Your task to perform on an android device: Search for dell alienware on amazon, select the first entry, add it to the cart, then select checkout. Image 0: 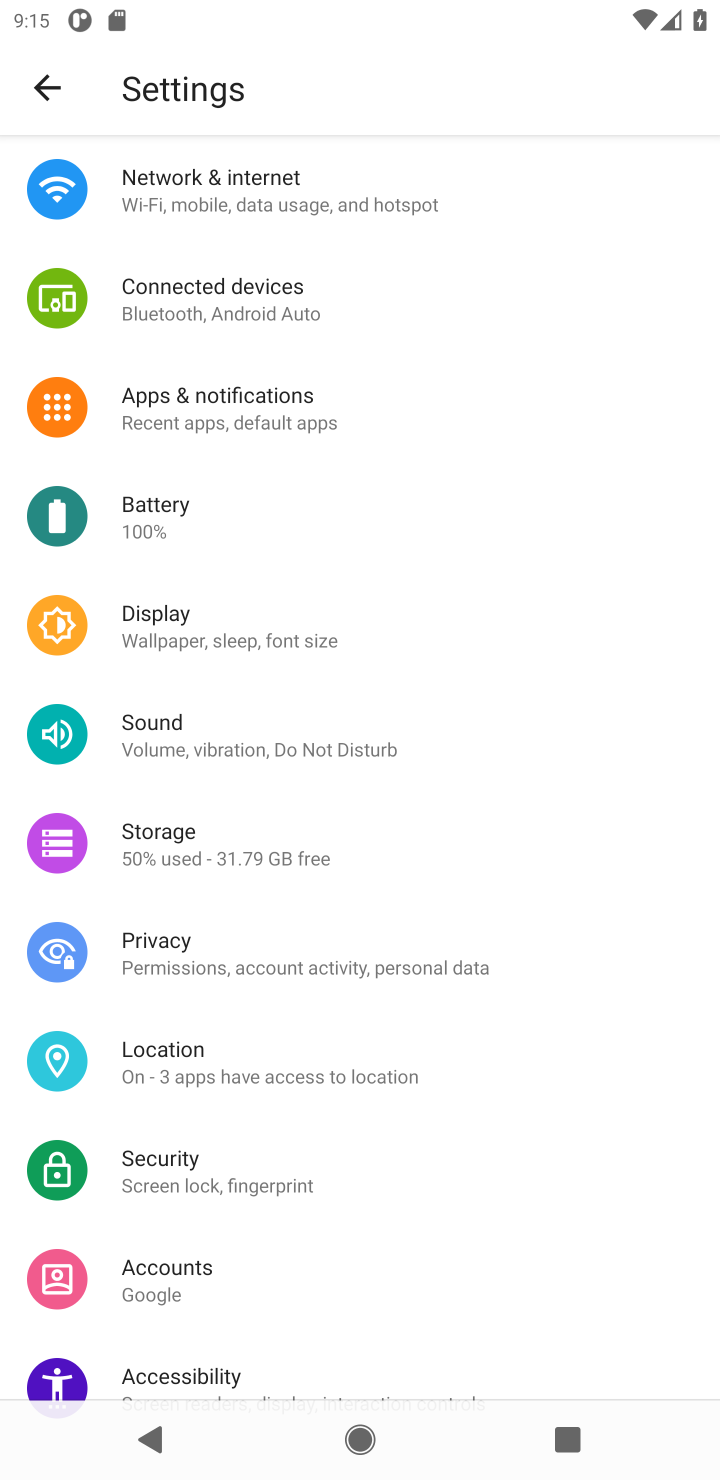
Step 0: press home button
Your task to perform on an android device: Search for dell alienware on amazon, select the first entry, add it to the cart, then select checkout. Image 1: 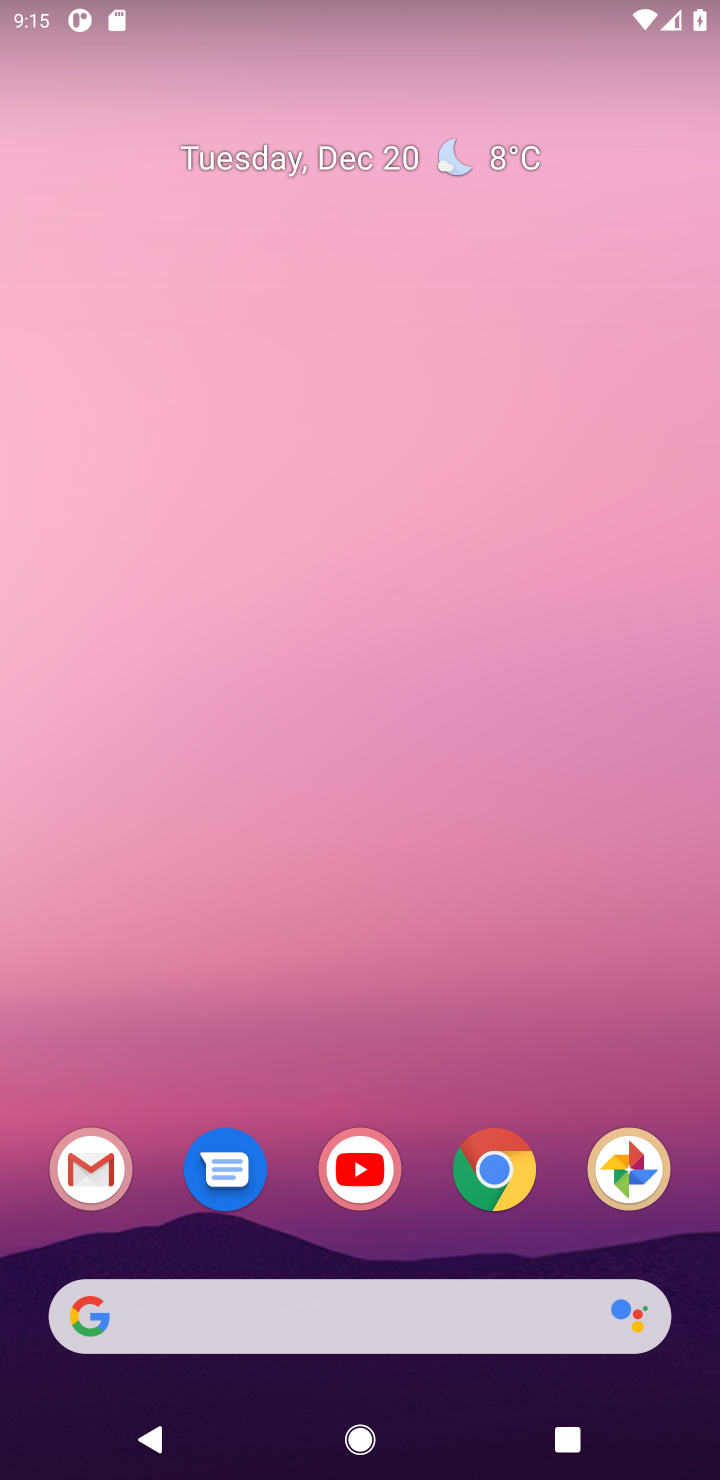
Step 1: click (502, 1154)
Your task to perform on an android device: Search for dell alienware on amazon, select the first entry, add it to the cart, then select checkout. Image 2: 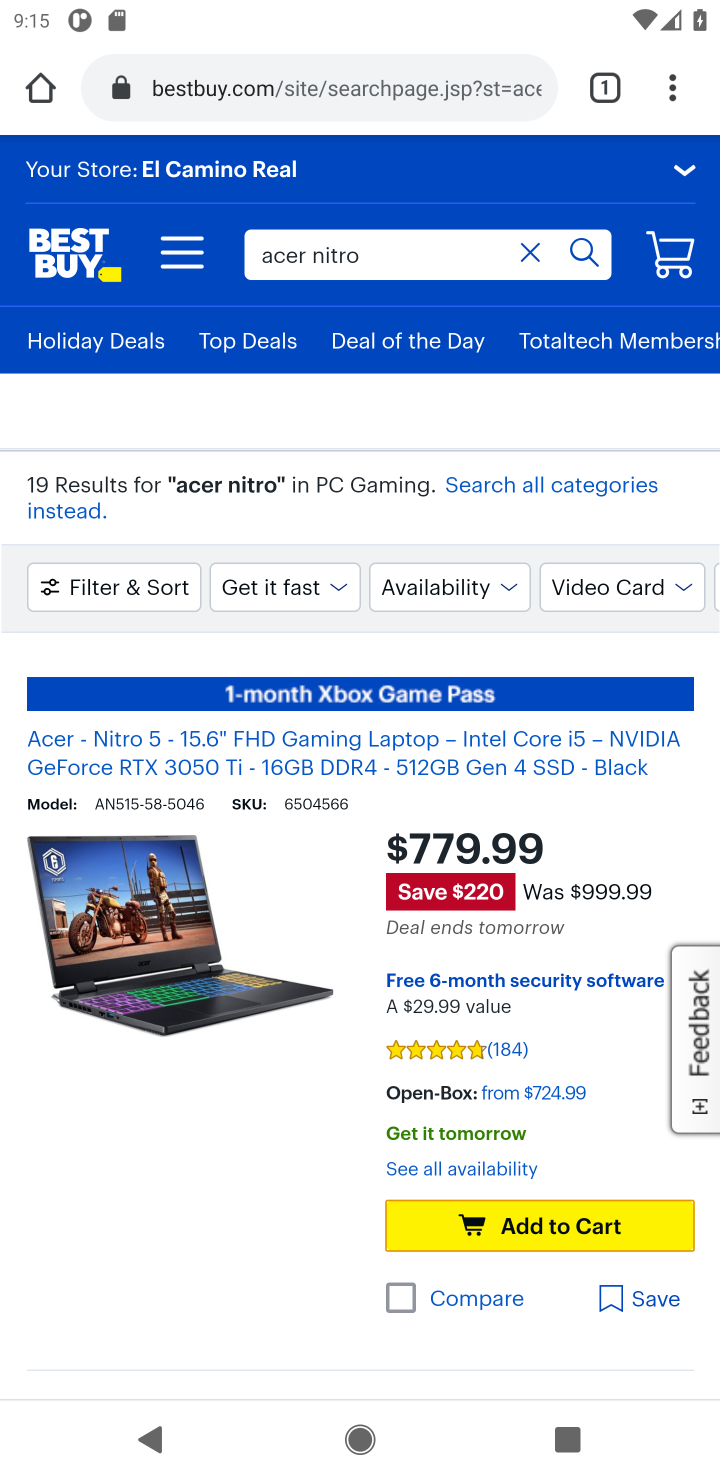
Step 2: click (370, 71)
Your task to perform on an android device: Search for dell alienware on amazon, select the first entry, add it to the cart, then select checkout. Image 3: 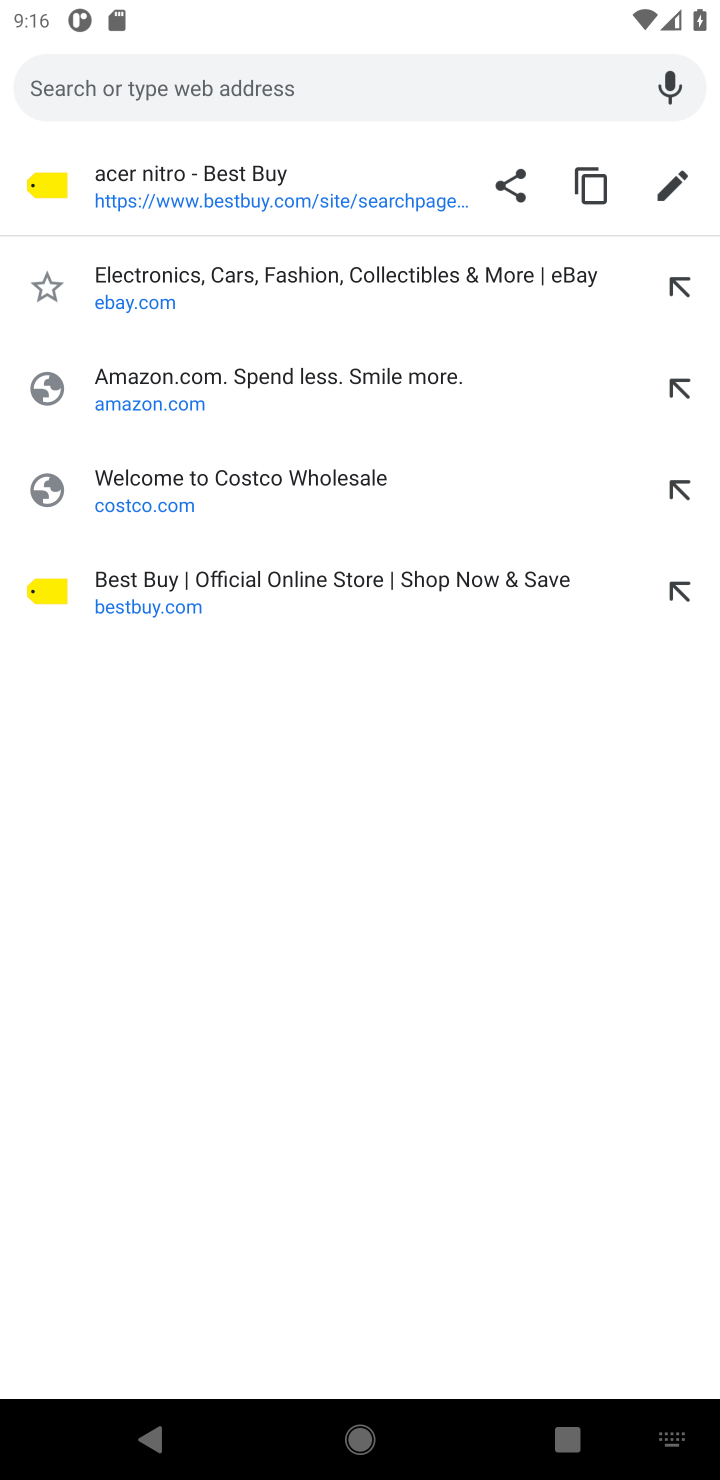
Step 3: click (311, 413)
Your task to perform on an android device: Search for dell alienware on amazon, select the first entry, add it to the cart, then select checkout. Image 4: 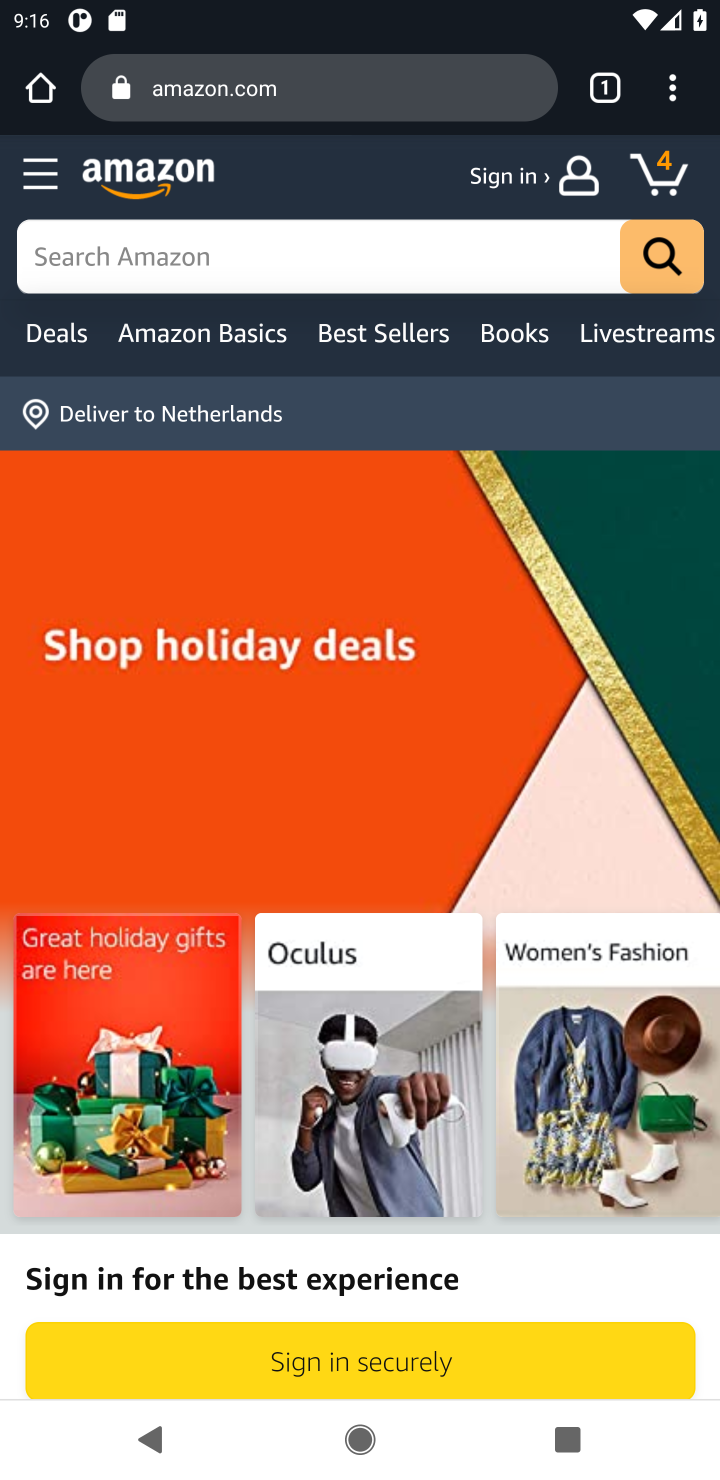
Step 4: click (406, 255)
Your task to perform on an android device: Search for dell alienware on amazon, select the first entry, add it to the cart, then select checkout. Image 5: 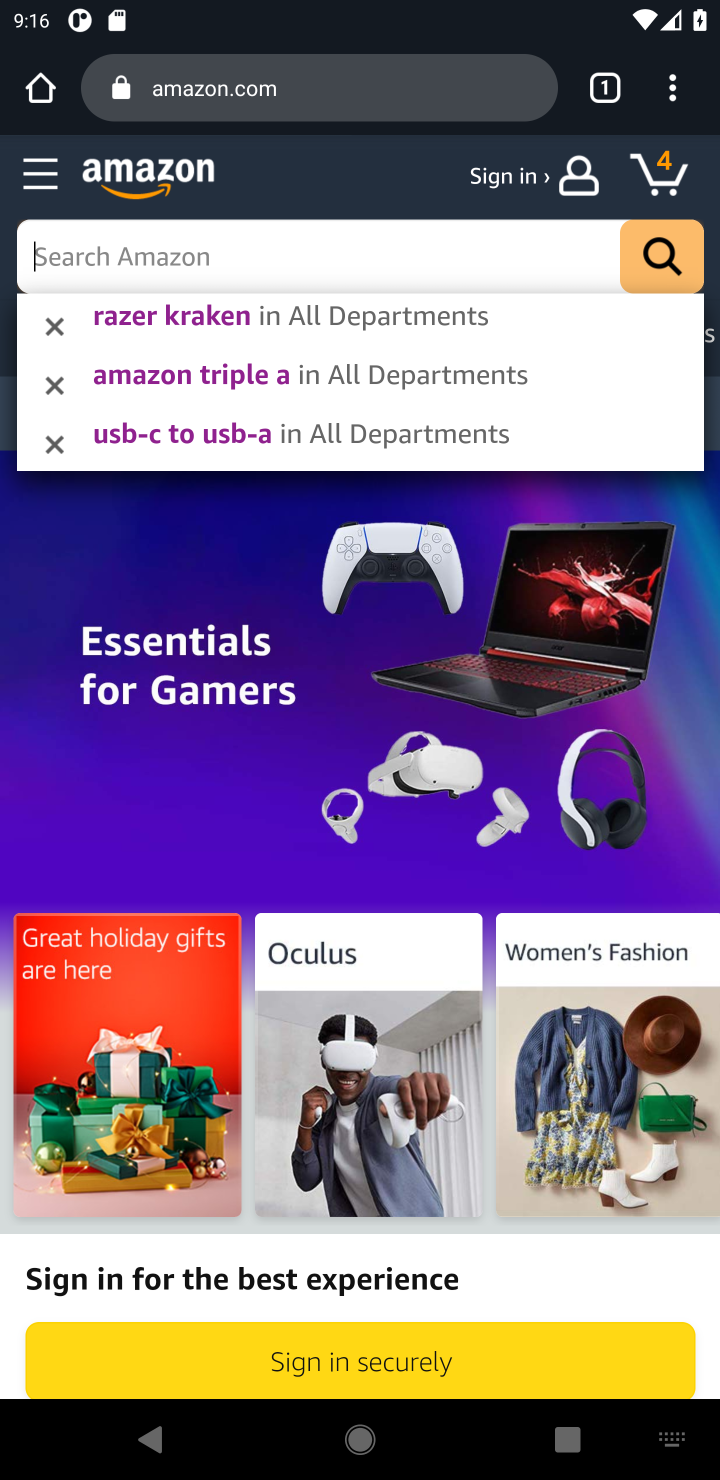
Step 5: type "dell alienware "
Your task to perform on an android device: Search for dell alienware on amazon, select the first entry, add it to the cart, then select checkout. Image 6: 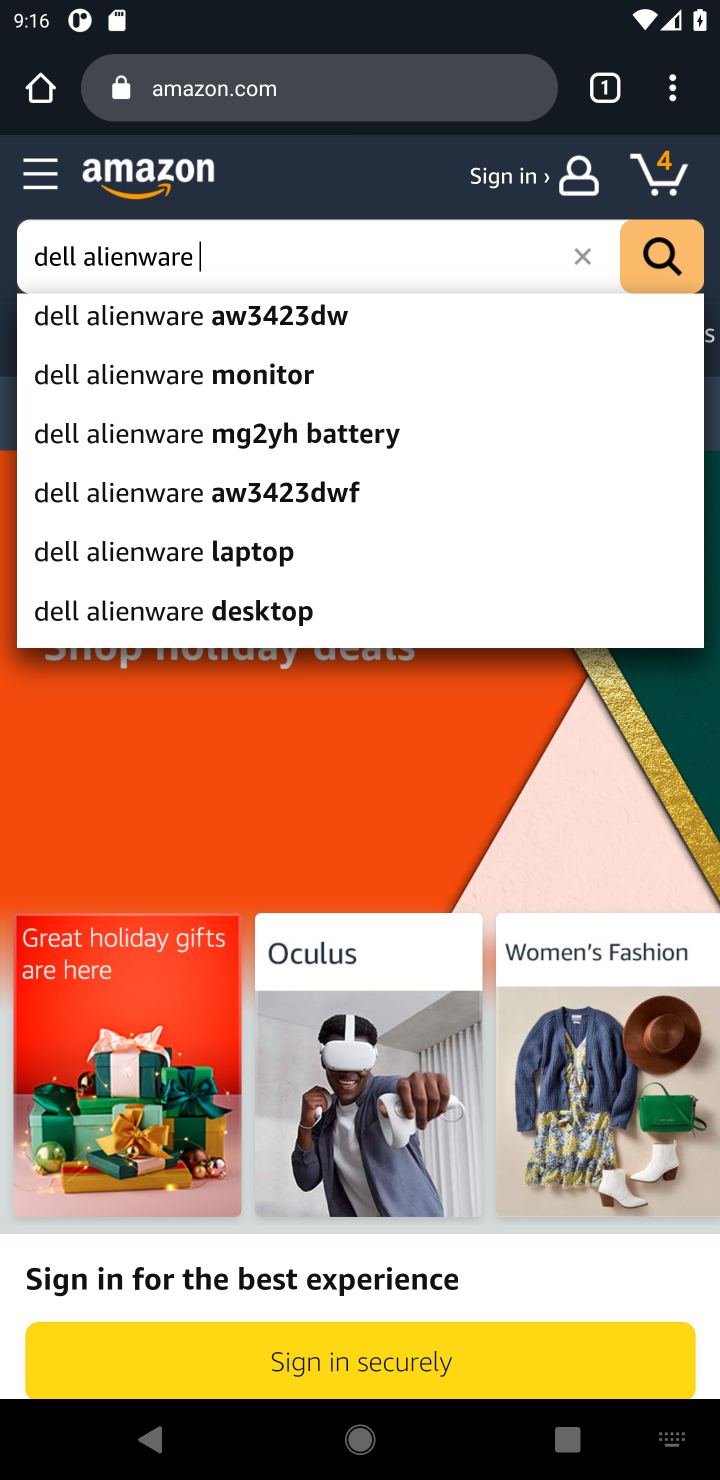
Step 6: click (662, 261)
Your task to perform on an android device: Search for dell alienware on amazon, select the first entry, add it to the cart, then select checkout. Image 7: 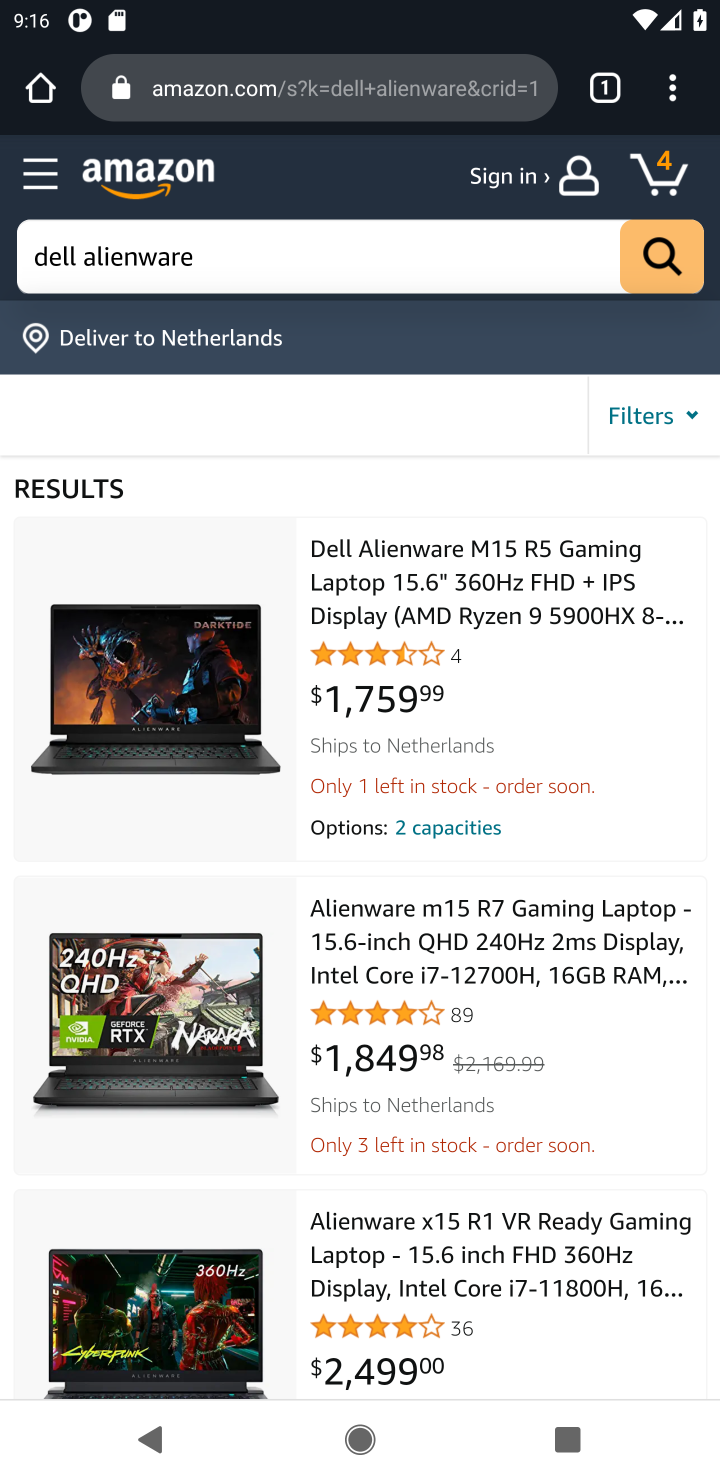
Step 7: click (412, 570)
Your task to perform on an android device: Search for dell alienware on amazon, select the first entry, add it to the cart, then select checkout. Image 8: 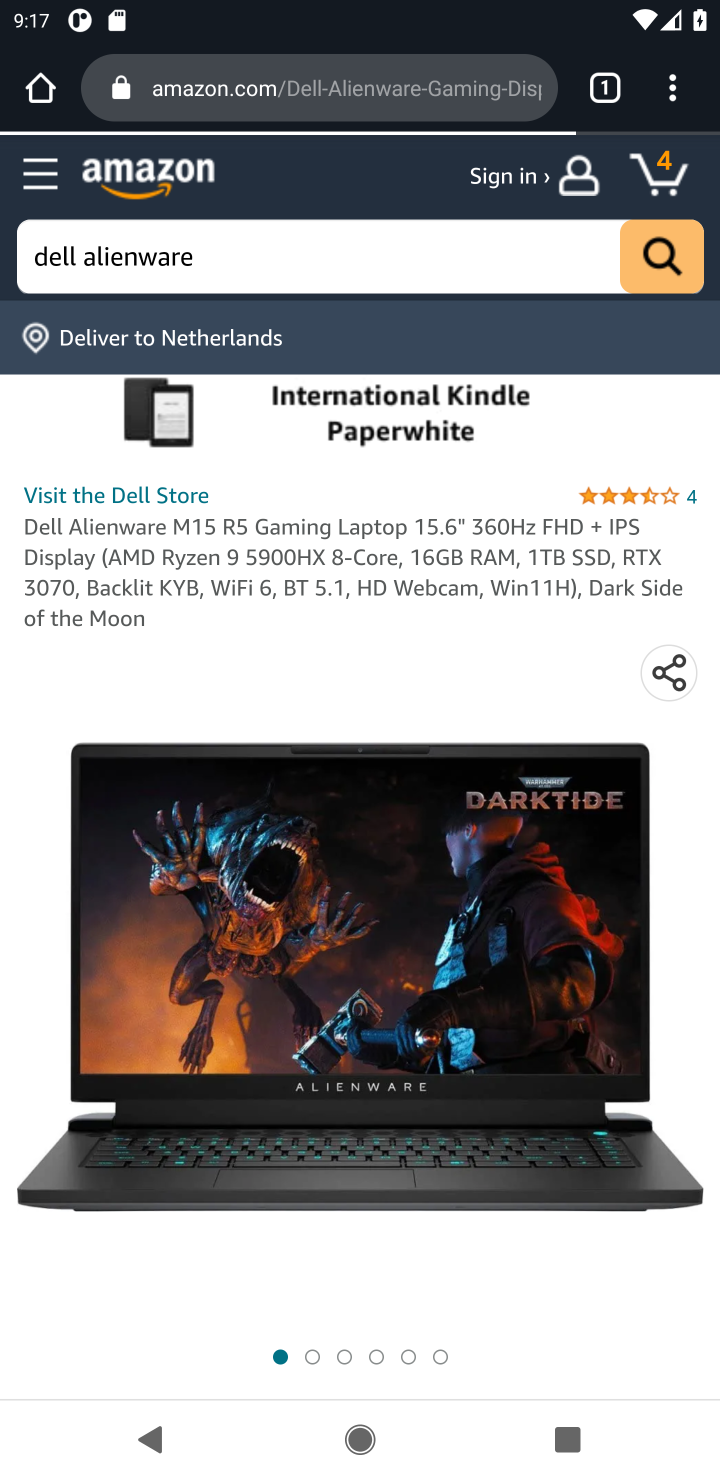
Step 8: drag from (399, 960) to (393, 577)
Your task to perform on an android device: Search for dell alienware on amazon, select the first entry, add it to the cart, then select checkout. Image 9: 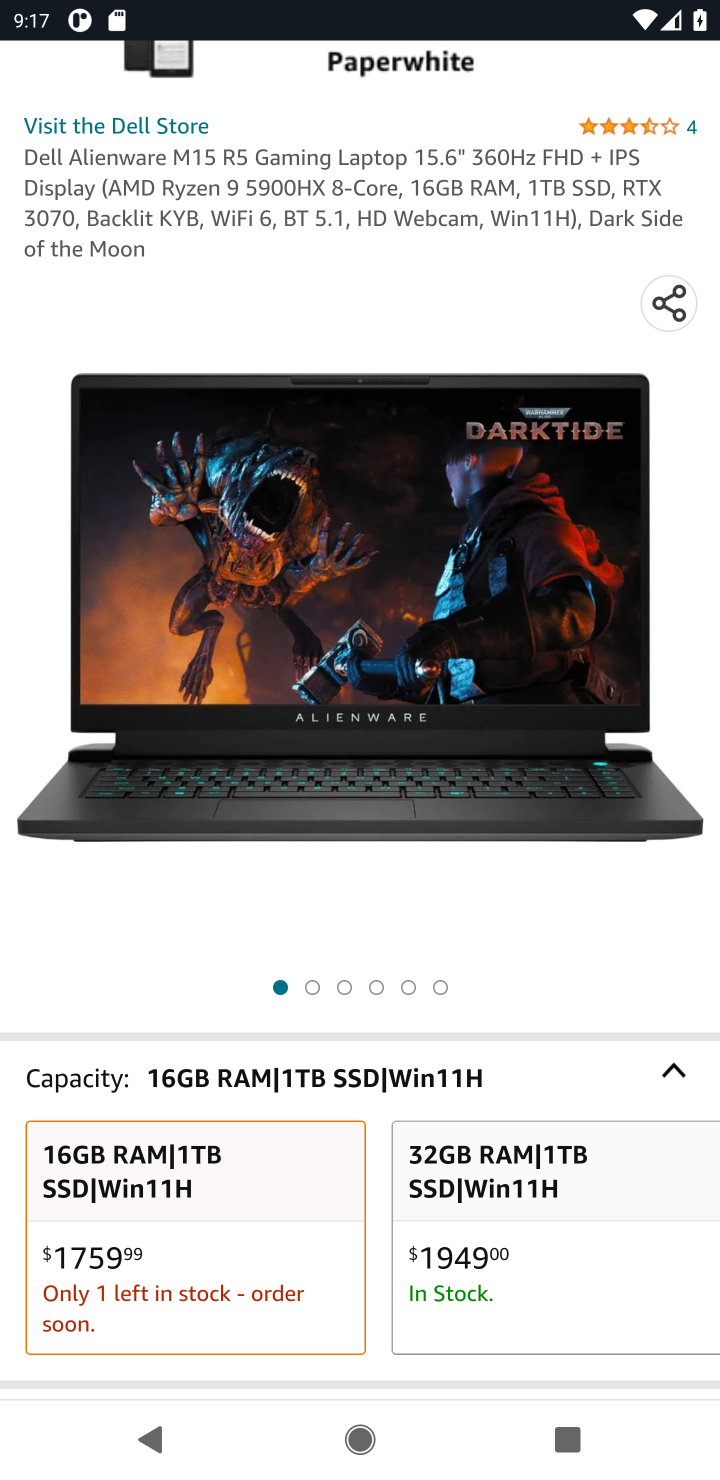
Step 9: drag from (415, 938) to (583, 127)
Your task to perform on an android device: Search for dell alienware on amazon, select the first entry, add it to the cart, then select checkout. Image 10: 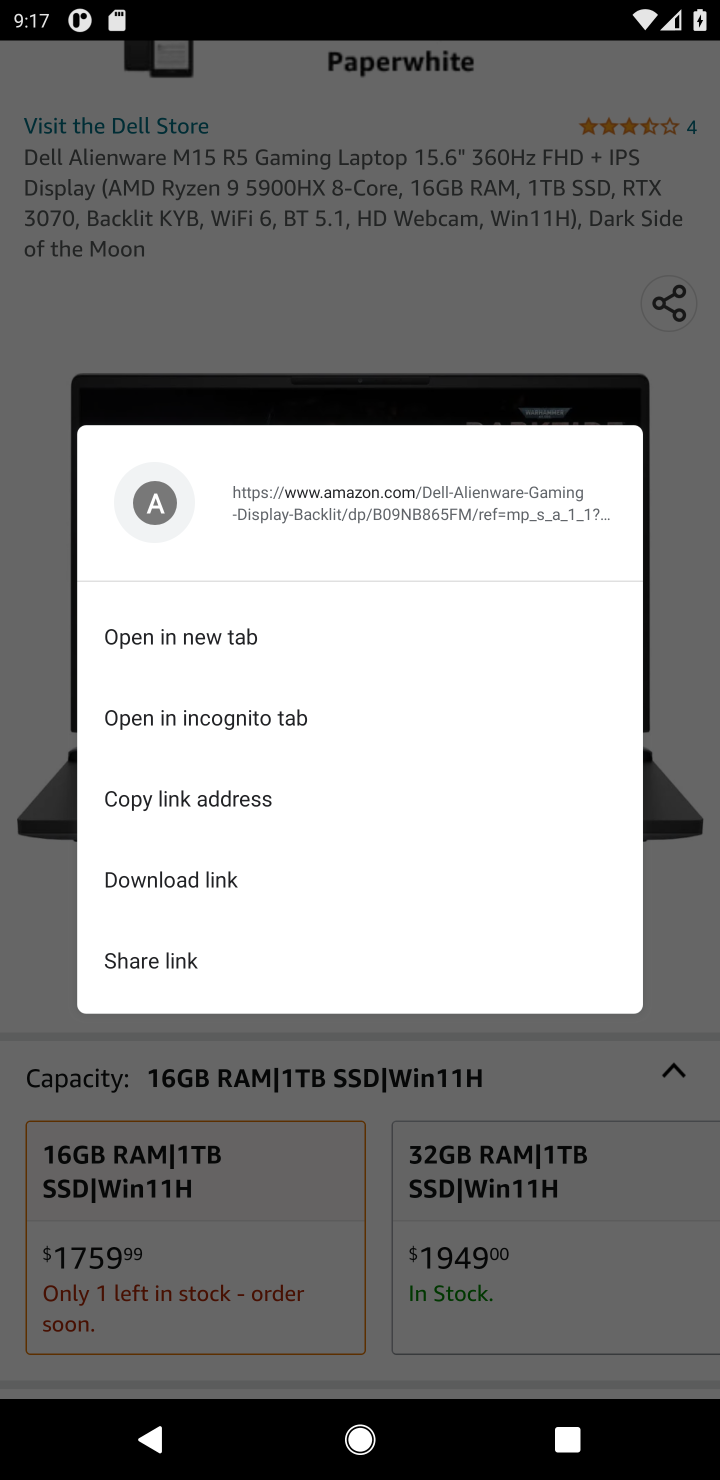
Step 10: click (593, 1041)
Your task to perform on an android device: Search for dell alienware on amazon, select the first entry, add it to the cart, then select checkout. Image 11: 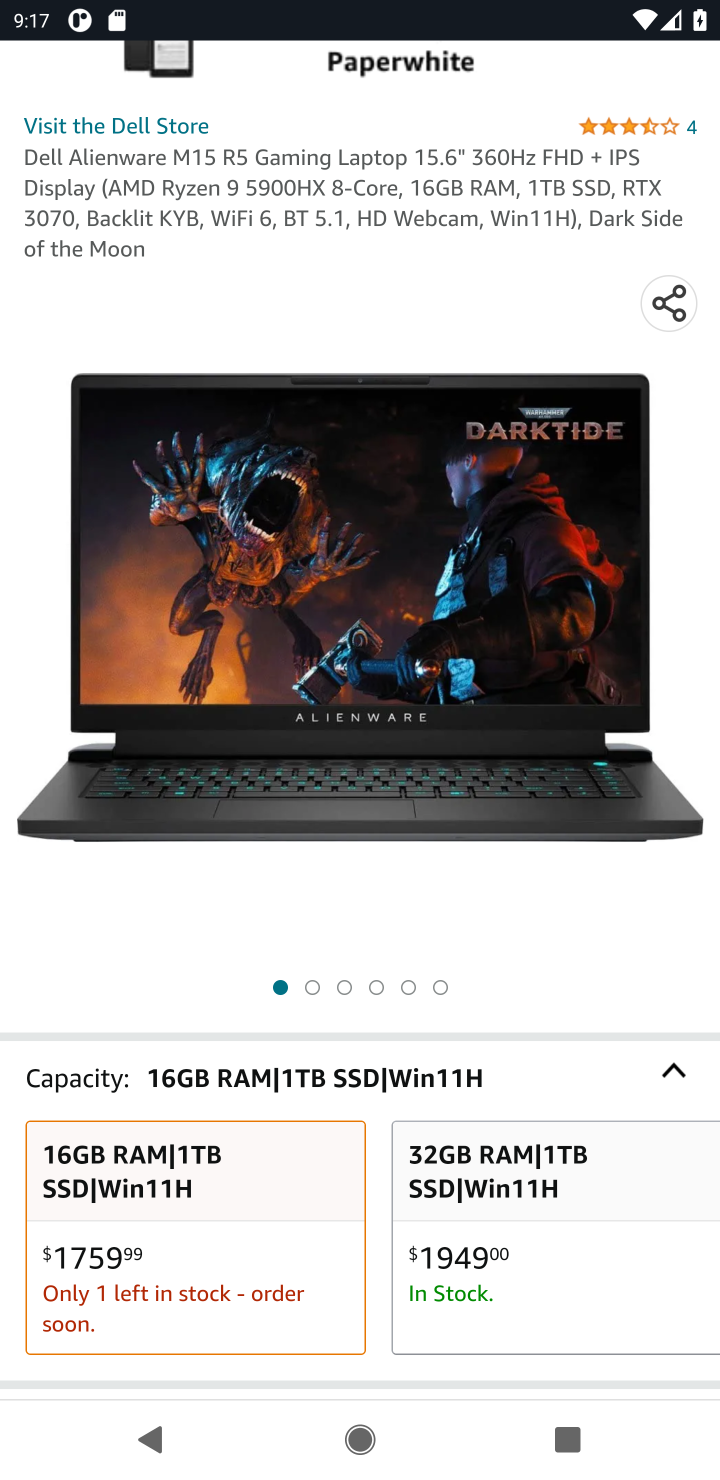
Step 11: drag from (544, 1079) to (712, 527)
Your task to perform on an android device: Search for dell alienware on amazon, select the first entry, add it to the cart, then select checkout. Image 12: 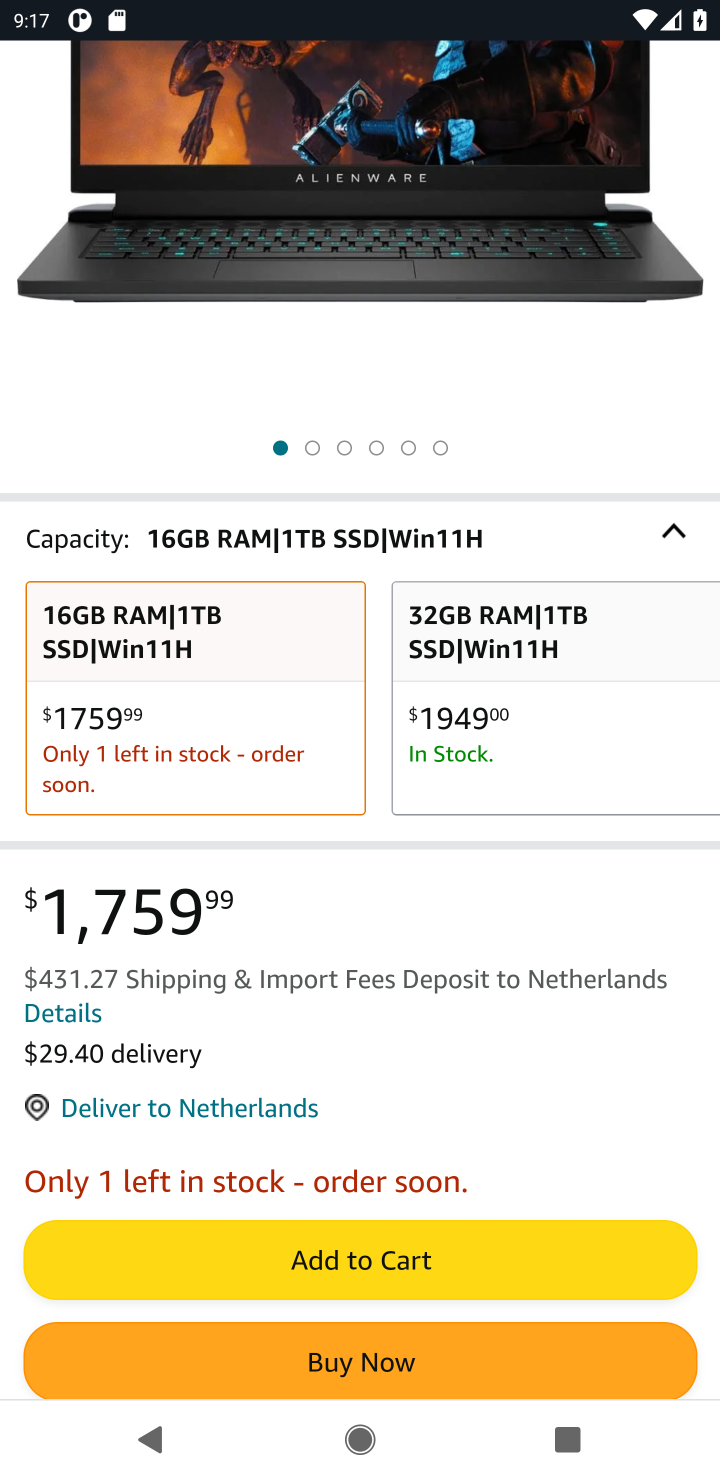
Step 12: click (312, 1281)
Your task to perform on an android device: Search for dell alienware on amazon, select the first entry, add it to the cart, then select checkout. Image 13: 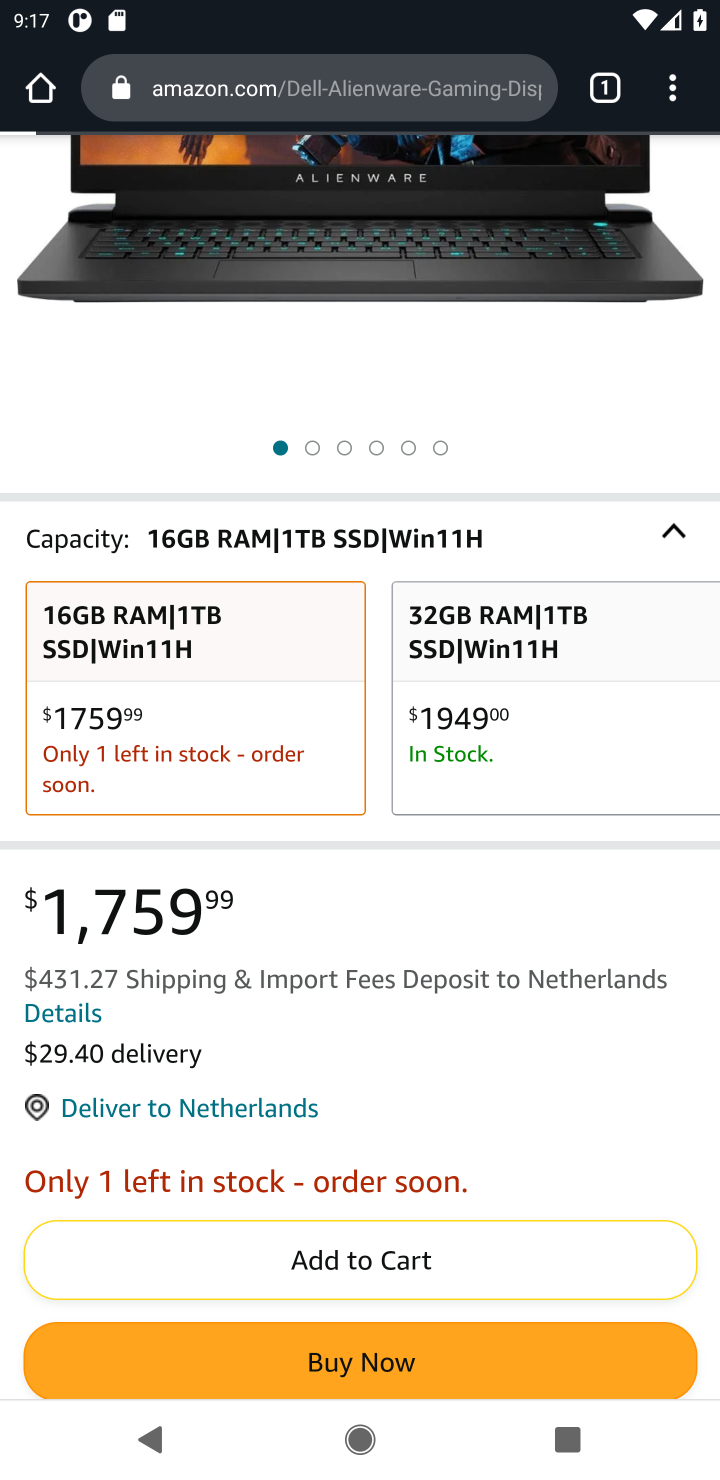
Step 13: task complete